Your task to perform on an android device: Go to settings Image 0: 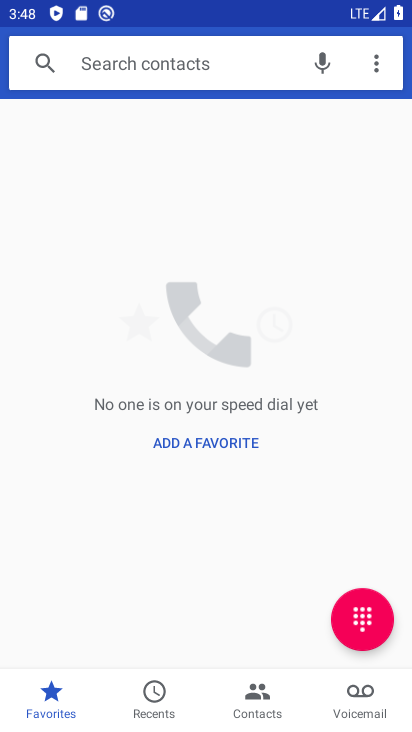
Step 0: press home button
Your task to perform on an android device: Go to settings Image 1: 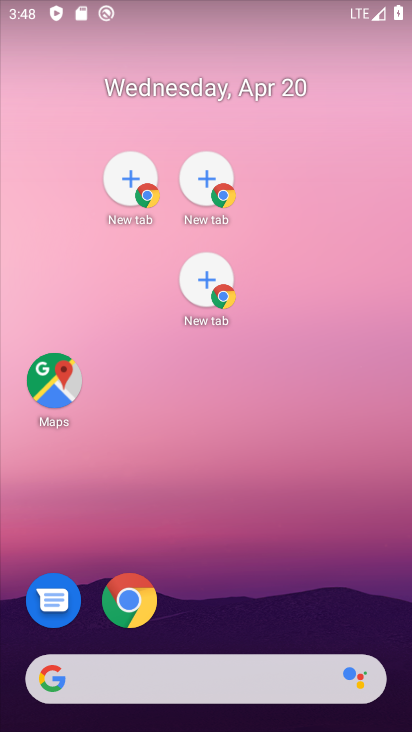
Step 1: drag from (249, 667) to (184, 0)
Your task to perform on an android device: Go to settings Image 2: 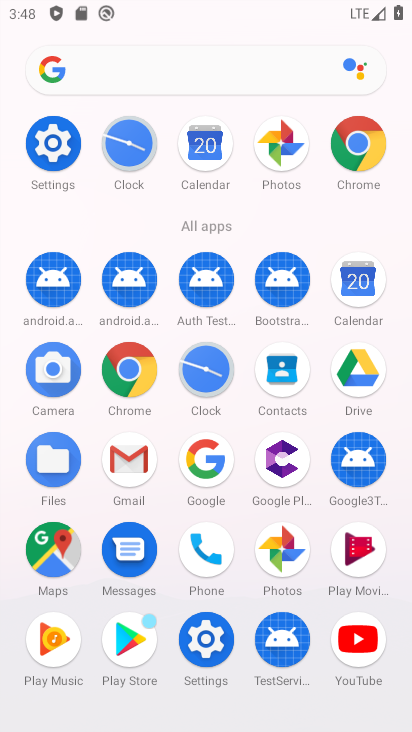
Step 2: click (49, 149)
Your task to perform on an android device: Go to settings Image 3: 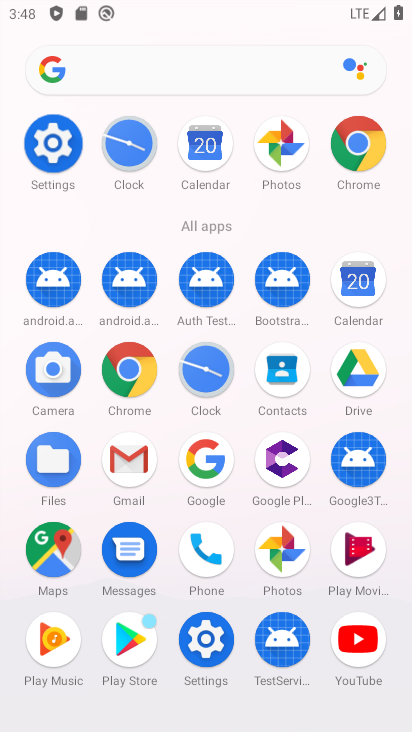
Step 3: click (49, 149)
Your task to perform on an android device: Go to settings Image 4: 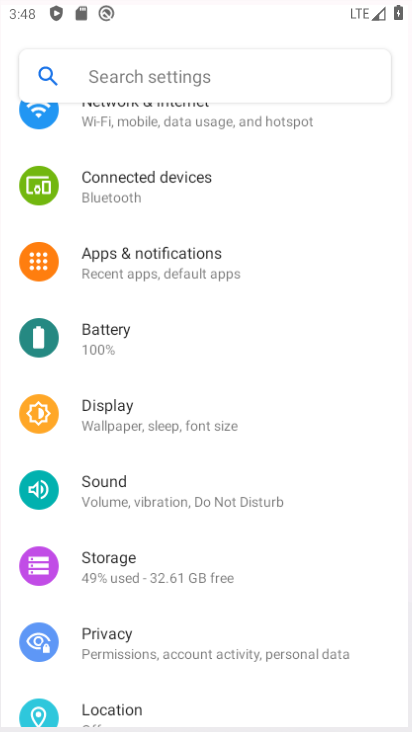
Step 4: click (49, 149)
Your task to perform on an android device: Go to settings Image 5: 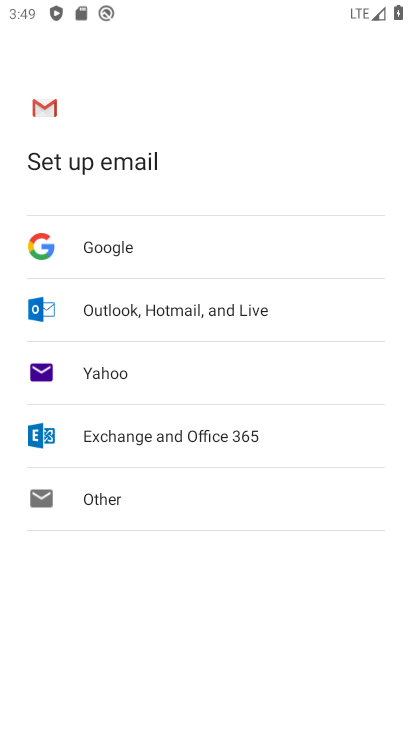
Step 5: press home button
Your task to perform on an android device: Go to settings Image 6: 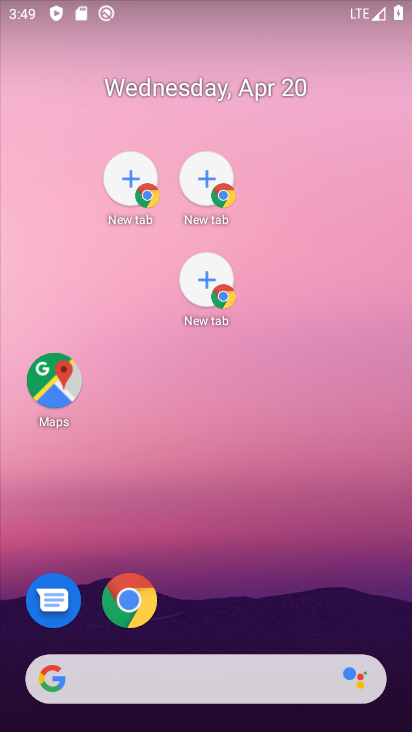
Step 6: drag from (284, 647) to (159, 144)
Your task to perform on an android device: Go to settings Image 7: 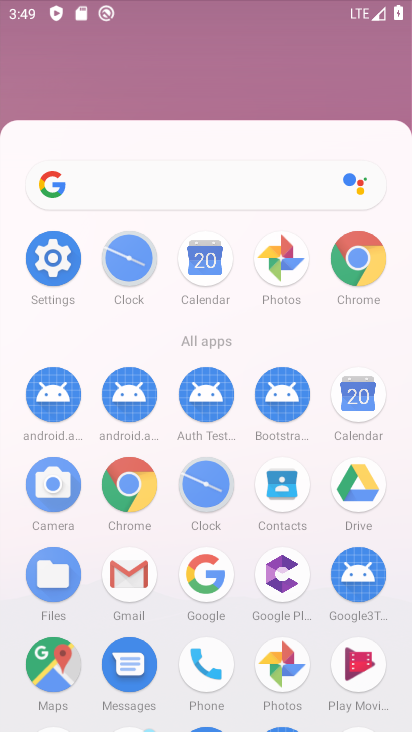
Step 7: drag from (259, 563) to (126, 191)
Your task to perform on an android device: Go to settings Image 8: 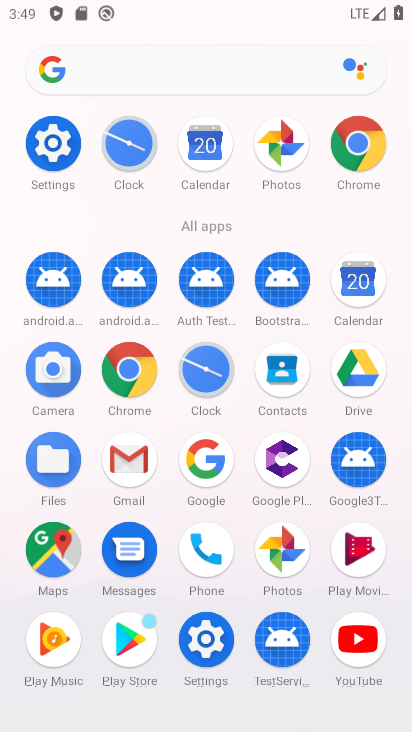
Step 8: click (54, 153)
Your task to perform on an android device: Go to settings Image 9: 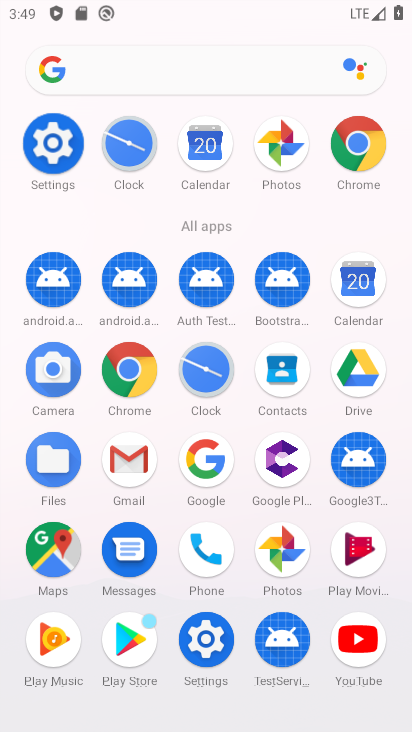
Step 9: click (53, 152)
Your task to perform on an android device: Go to settings Image 10: 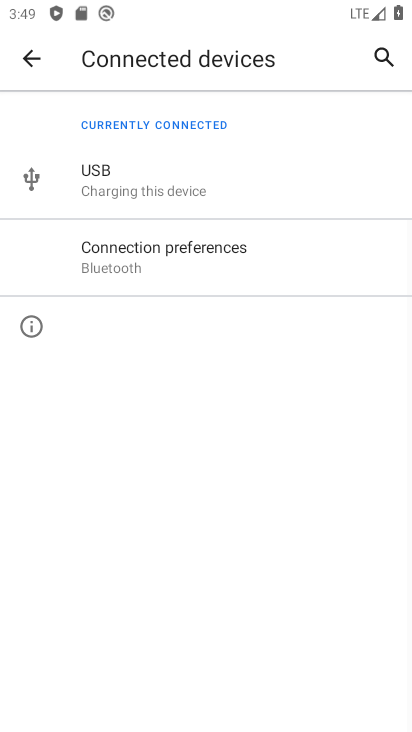
Step 10: click (19, 56)
Your task to perform on an android device: Go to settings Image 11: 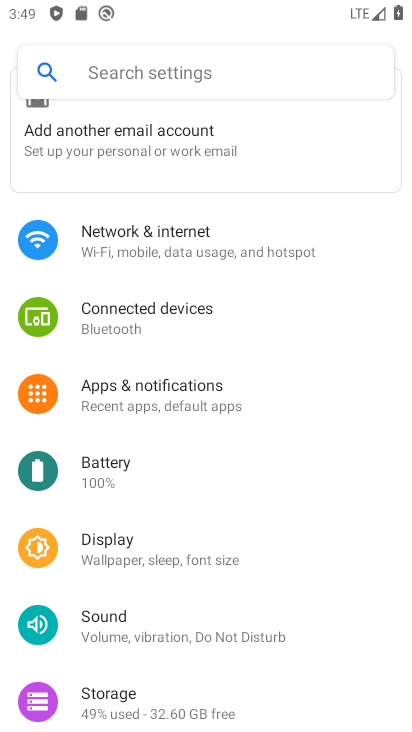
Step 11: task complete